Your task to perform on an android device: Go to location settings Image 0: 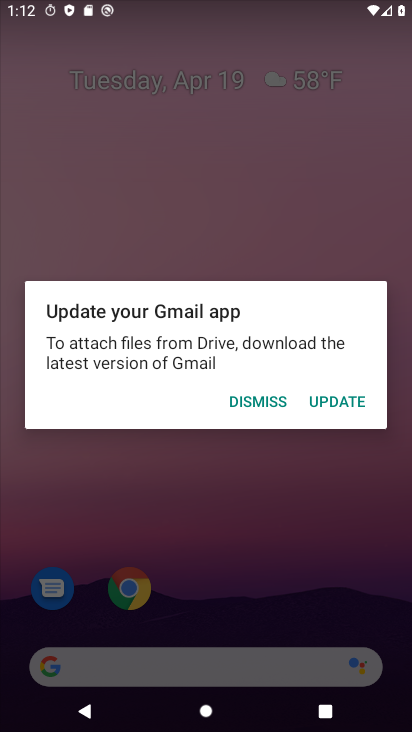
Step 0: press home button
Your task to perform on an android device: Go to location settings Image 1: 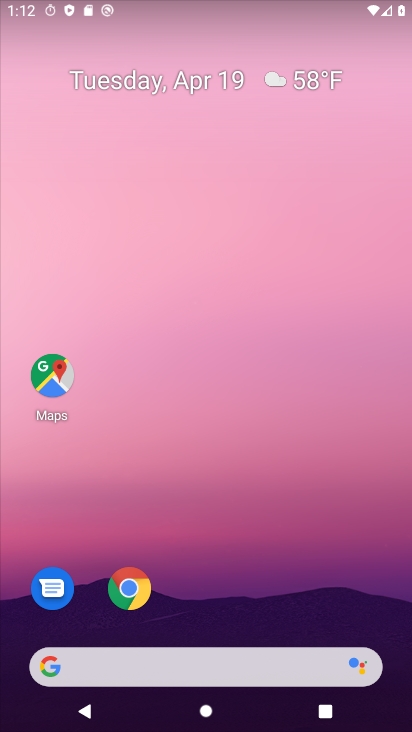
Step 1: drag from (207, 612) to (196, 265)
Your task to perform on an android device: Go to location settings Image 2: 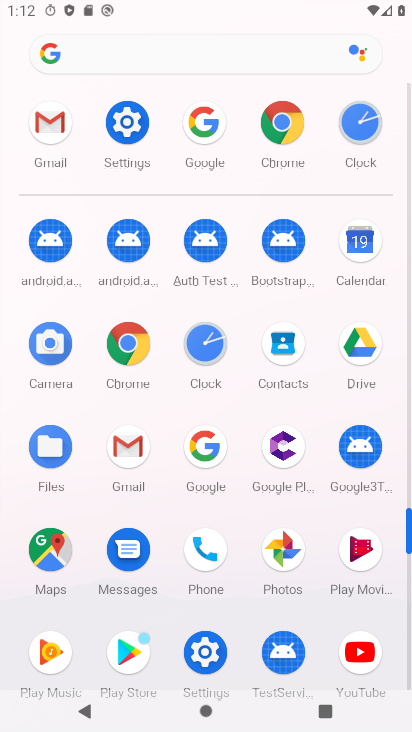
Step 2: click (117, 138)
Your task to perform on an android device: Go to location settings Image 3: 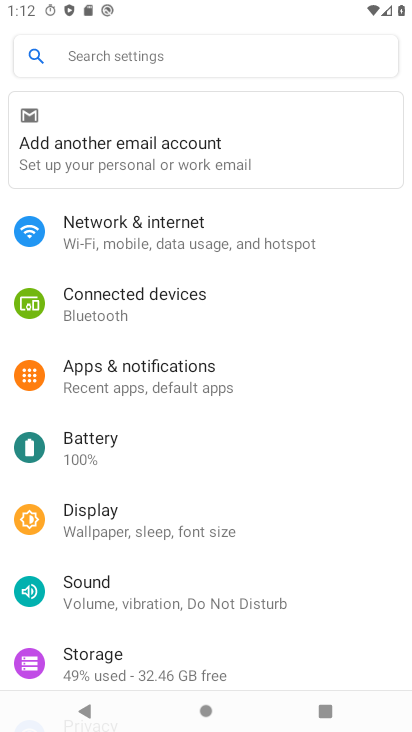
Step 3: drag from (223, 526) to (237, 178)
Your task to perform on an android device: Go to location settings Image 4: 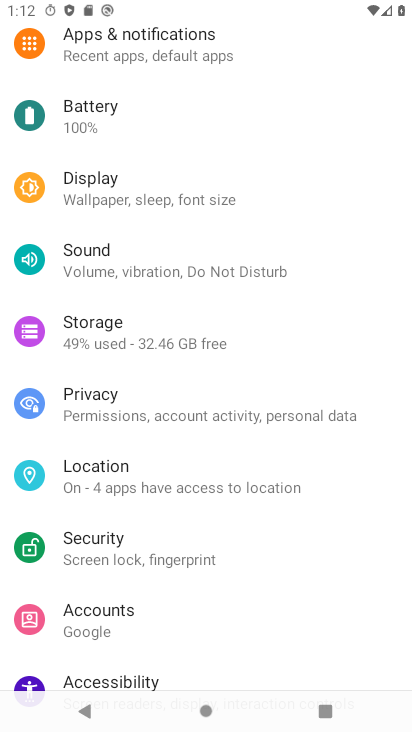
Step 4: click (209, 479)
Your task to perform on an android device: Go to location settings Image 5: 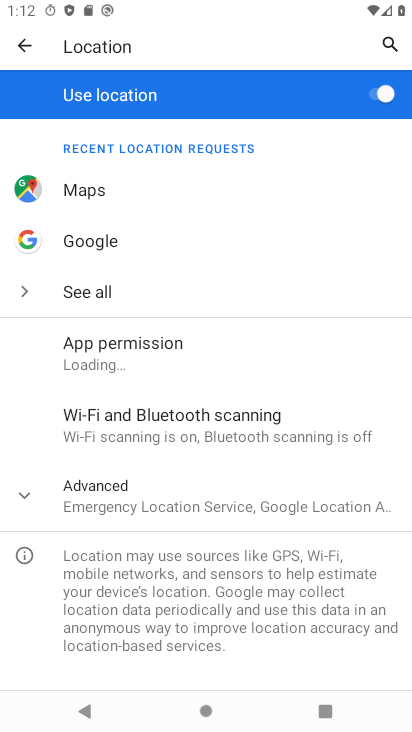
Step 5: drag from (209, 474) to (198, 214)
Your task to perform on an android device: Go to location settings Image 6: 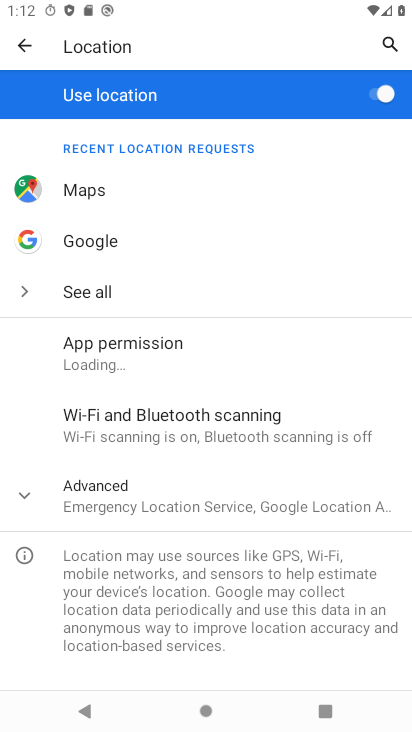
Step 6: drag from (192, 505) to (211, 240)
Your task to perform on an android device: Go to location settings Image 7: 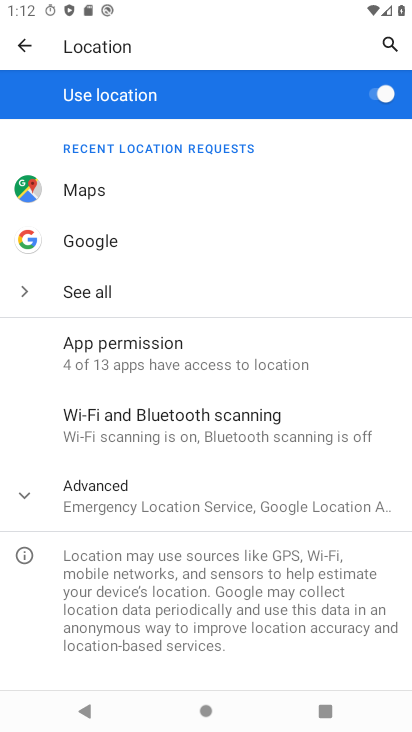
Step 7: click (107, 478)
Your task to perform on an android device: Go to location settings Image 8: 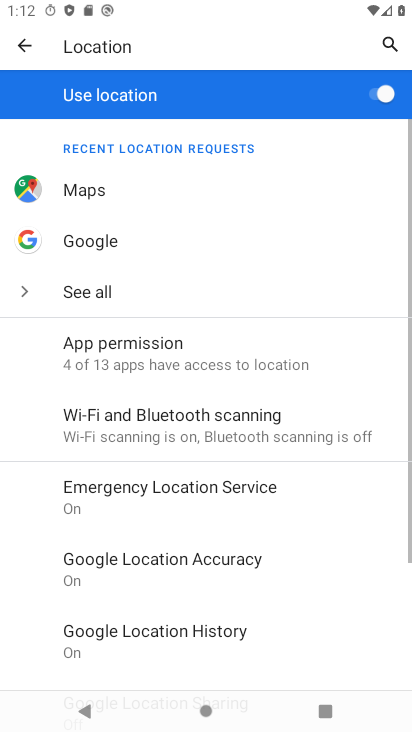
Step 8: task complete